Your task to perform on an android device: Open calendar and show me the fourth week of next month Image 0: 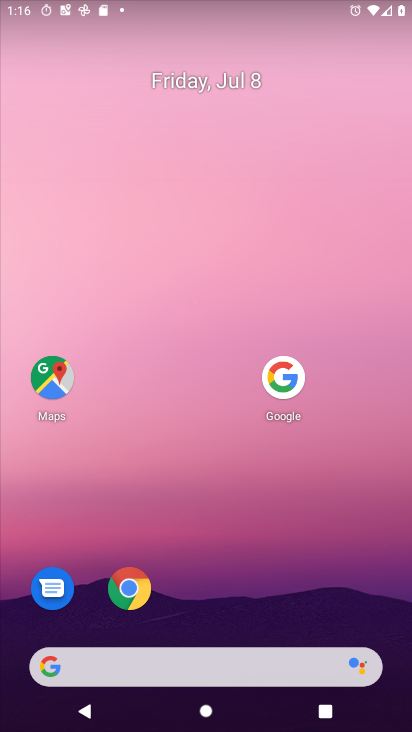
Step 0: press home button
Your task to perform on an android device: Open calendar and show me the fourth week of next month Image 1: 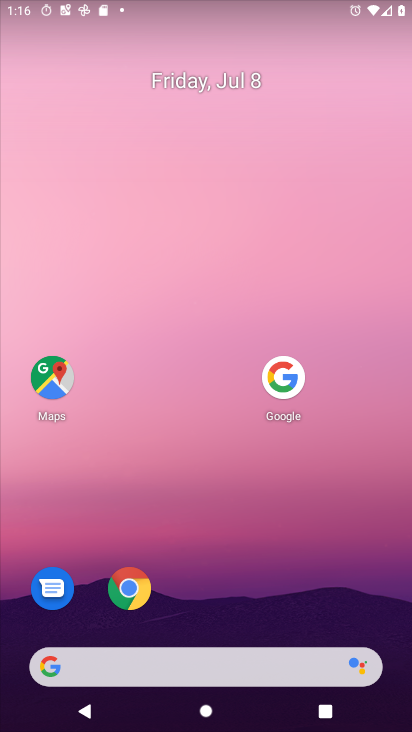
Step 1: drag from (189, 657) to (291, 99)
Your task to perform on an android device: Open calendar and show me the fourth week of next month Image 2: 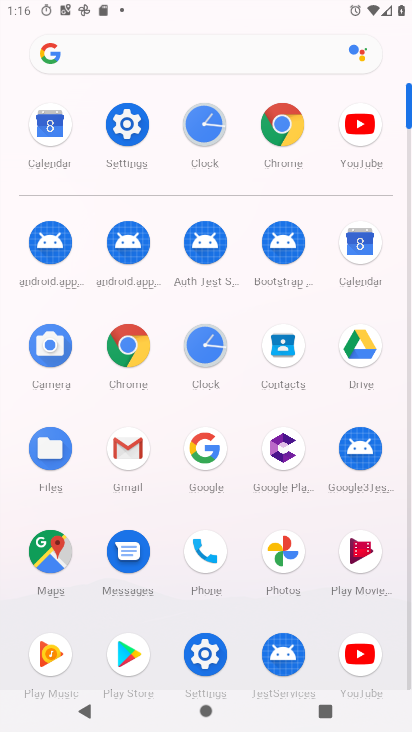
Step 2: click (357, 250)
Your task to perform on an android device: Open calendar and show me the fourth week of next month Image 3: 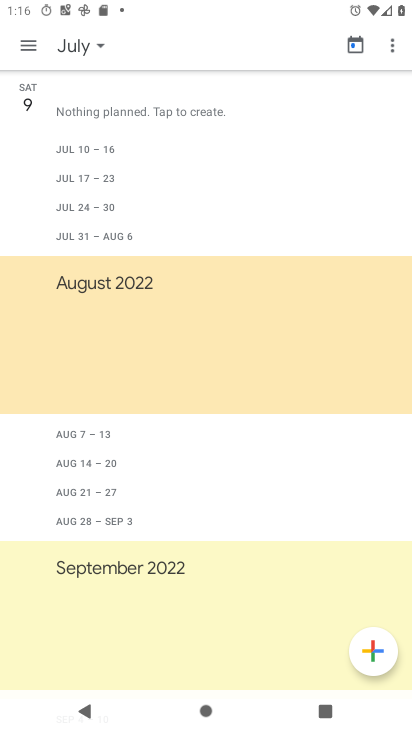
Step 3: click (69, 40)
Your task to perform on an android device: Open calendar and show me the fourth week of next month Image 4: 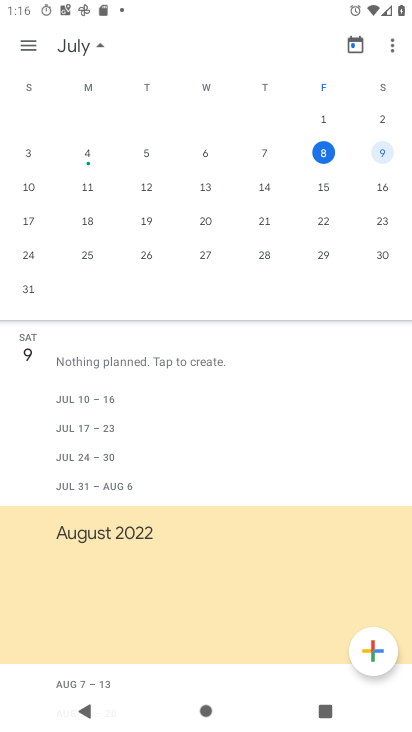
Step 4: drag from (337, 225) to (7, 223)
Your task to perform on an android device: Open calendar and show me the fourth week of next month Image 5: 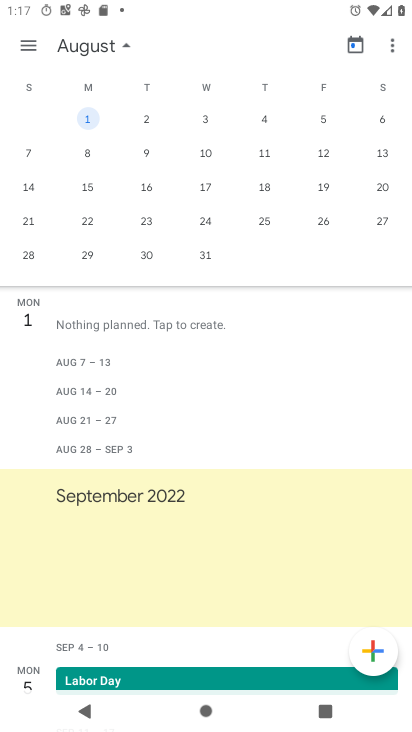
Step 5: click (29, 225)
Your task to perform on an android device: Open calendar and show me the fourth week of next month Image 6: 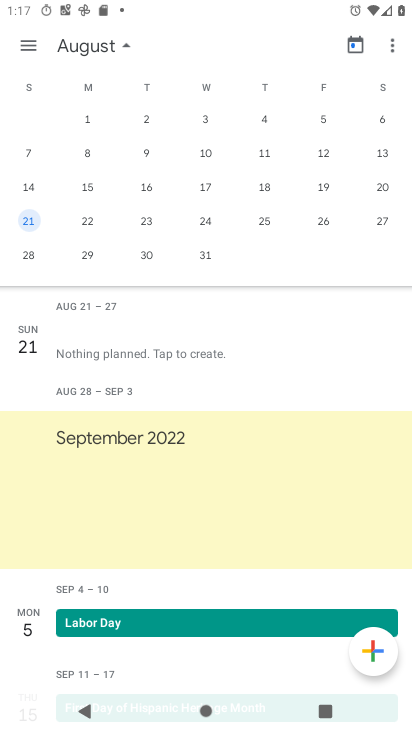
Step 6: click (17, 49)
Your task to perform on an android device: Open calendar and show me the fourth week of next month Image 7: 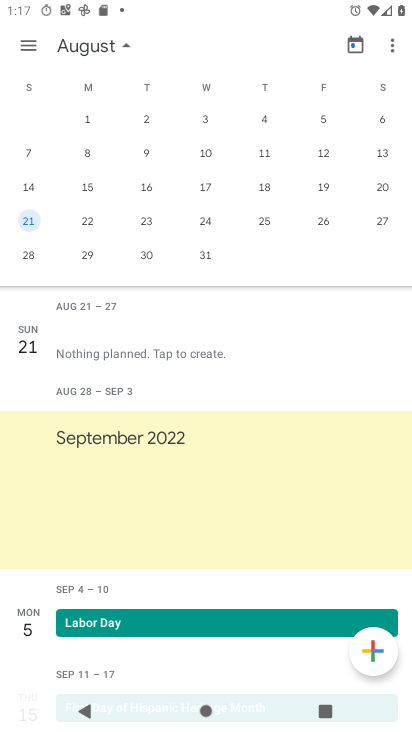
Step 7: click (25, 41)
Your task to perform on an android device: Open calendar and show me the fourth week of next month Image 8: 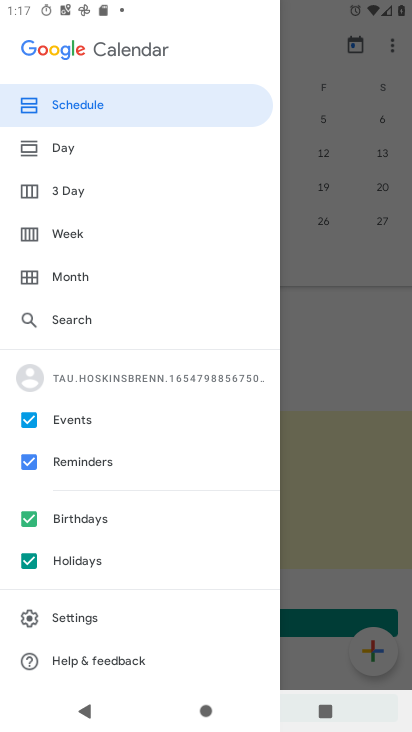
Step 8: click (72, 231)
Your task to perform on an android device: Open calendar and show me the fourth week of next month Image 9: 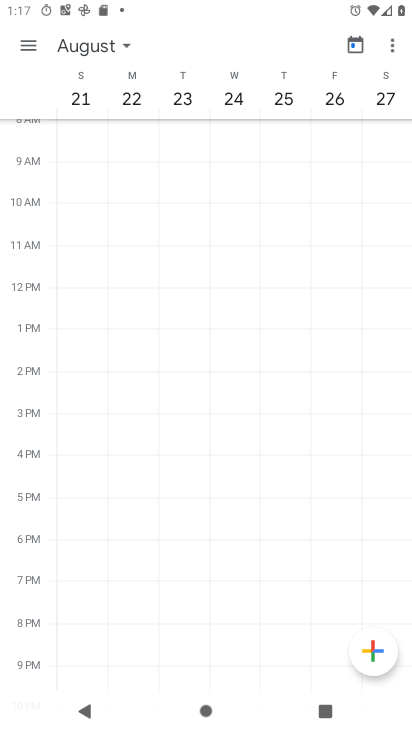
Step 9: task complete